Your task to perform on an android device: Find coffee shops on Maps Image 0: 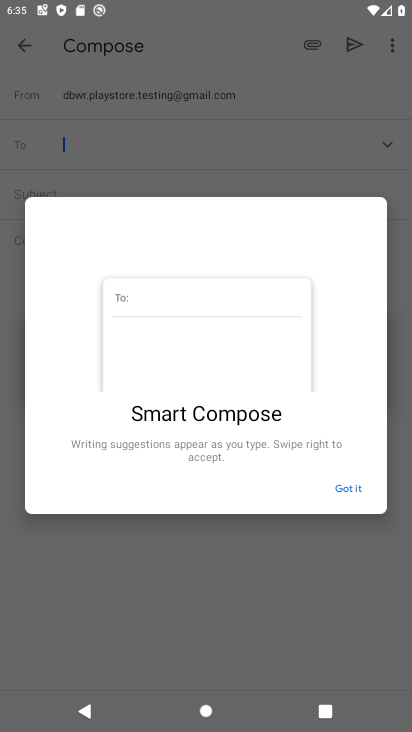
Step 0: press home button
Your task to perform on an android device: Find coffee shops on Maps Image 1: 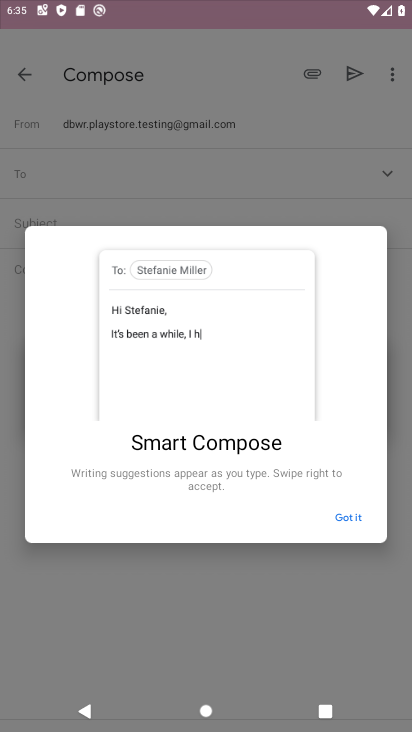
Step 1: drag from (400, 628) to (261, 98)
Your task to perform on an android device: Find coffee shops on Maps Image 2: 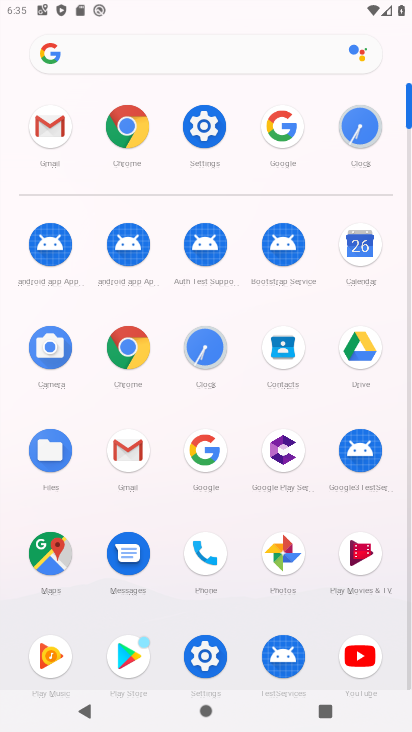
Step 2: click (47, 564)
Your task to perform on an android device: Find coffee shops on Maps Image 3: 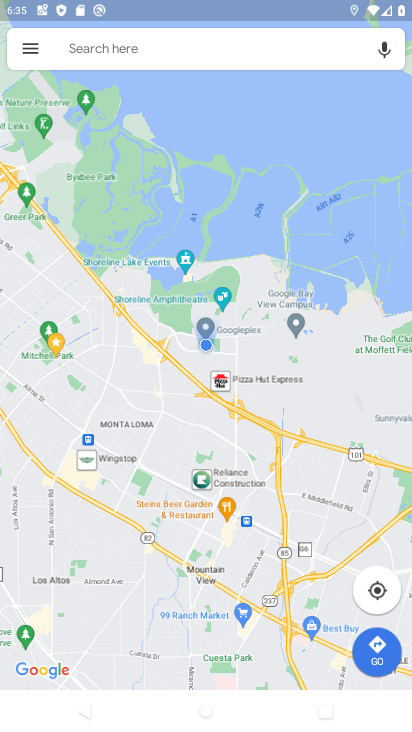
Step 3: click (149, 43)
Your task to perform on an android device: Find coffee shops on Maps Image 4: 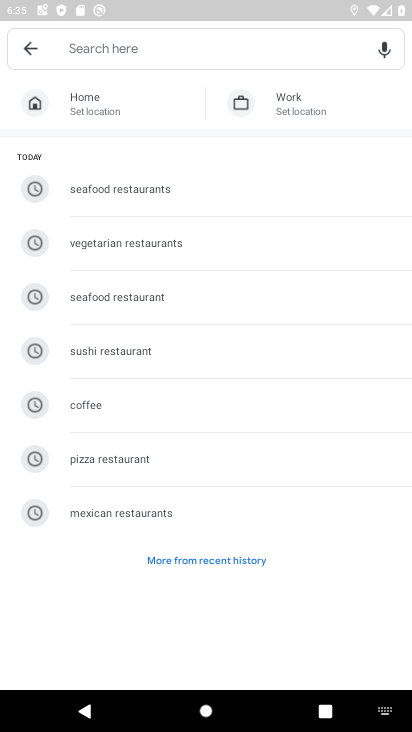
Step 4: click (117, 411)
Your task to perform on an android device: Find coffee shops on Maps Image 5: 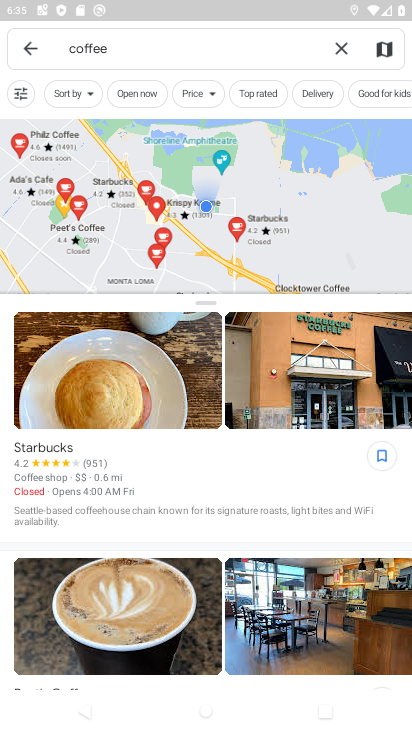
Step 5: task complete